Your task to perform on an android device: Open my contact list Image 0: 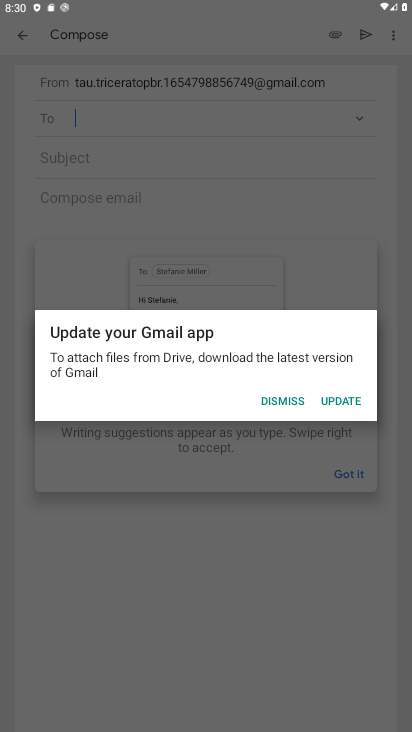
Step 0: press home button
Your task to perform on an android device: Open my contact list Image 1: 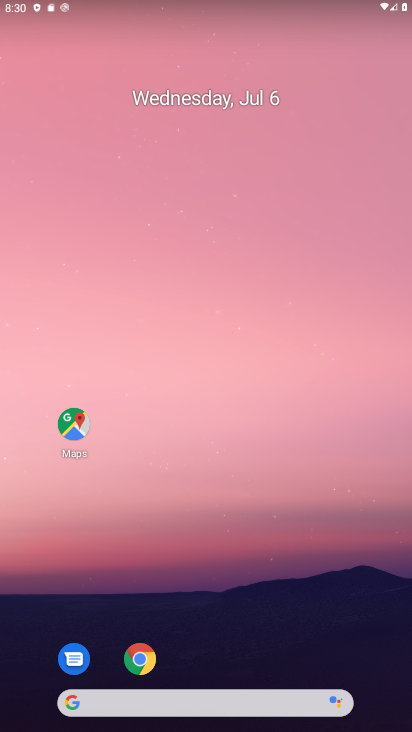
Step 1: drag from (372, 637) to (340, 85)
Your task to perform on an android device: Open my contact list Image 2: 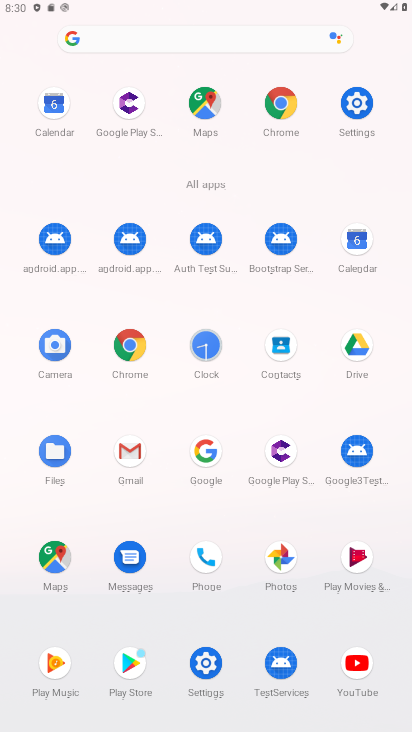
Step 2: click (290, 344)
Your task to perform on an android device: Open my contact list Image 3: 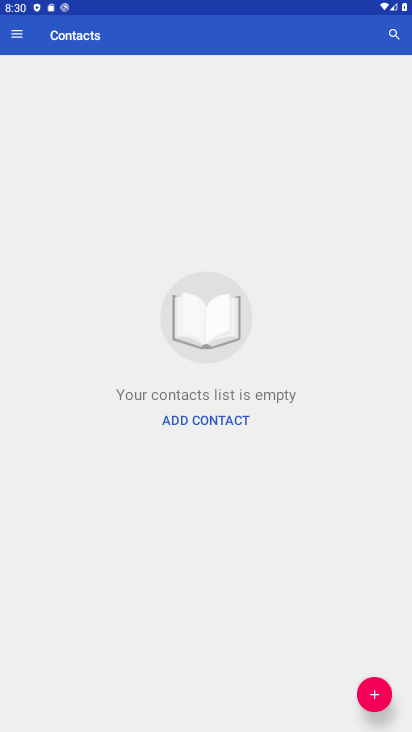
Step 3: task complete